Your task to perform on an android device: Open the web browser Image 0: 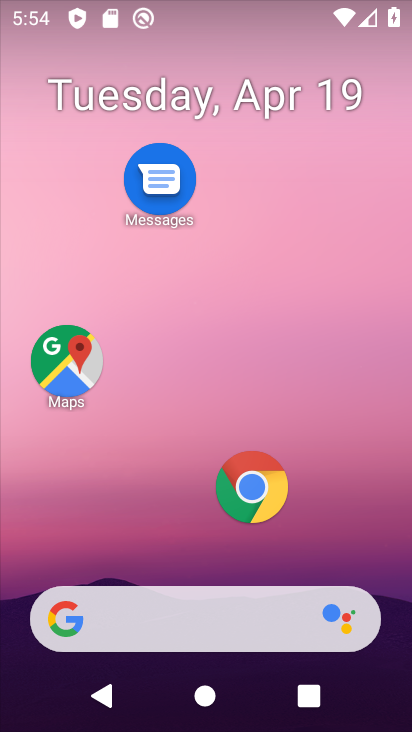
Step 0: click (248, 481)
Your task to perform on an android device: Open the web browser Image 1: 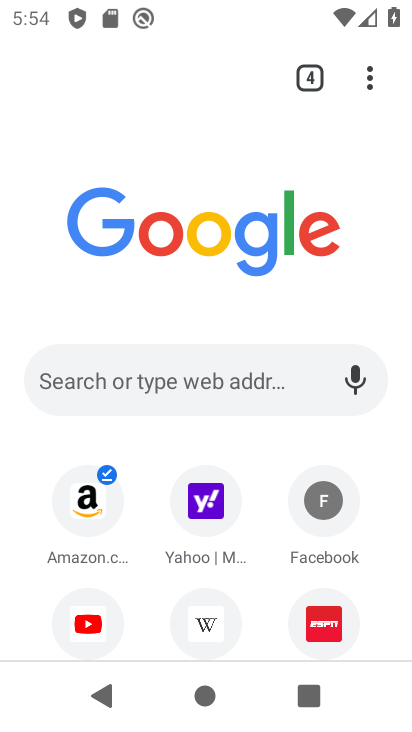
Step 1: task complete